Your task to perform on an android device: turn off picture-in-picture Image 0: 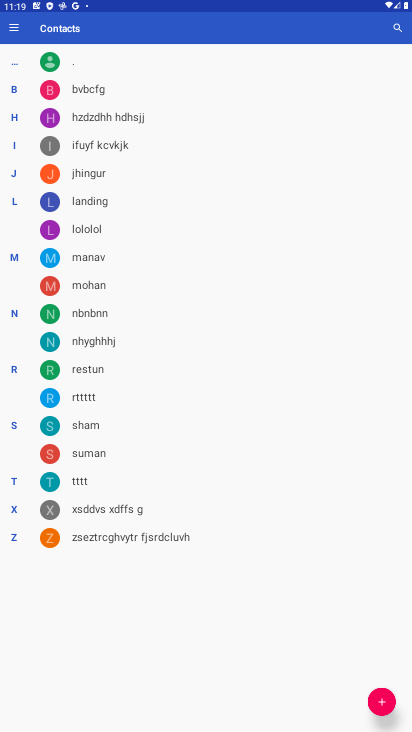
Step 0: press home button
Your task to perform on an android device: turn off picture-in-picture Image 1: 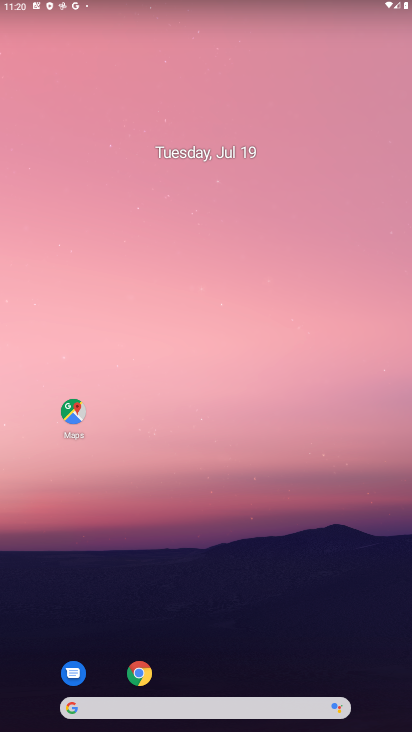
Step 1: drag from (268, 686) to (222, 141)
Your task to perform on an android device: turn off picture-in-picture Image 2: 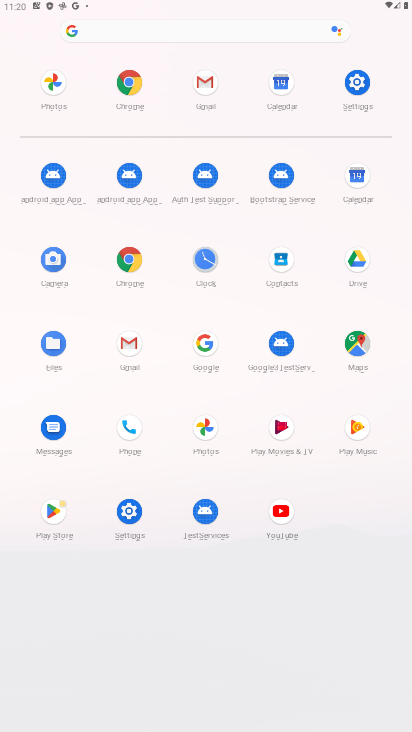
Step 2: click (351, 97)
Your task to perform on an android device: turn off picture-in-picture Image 3: 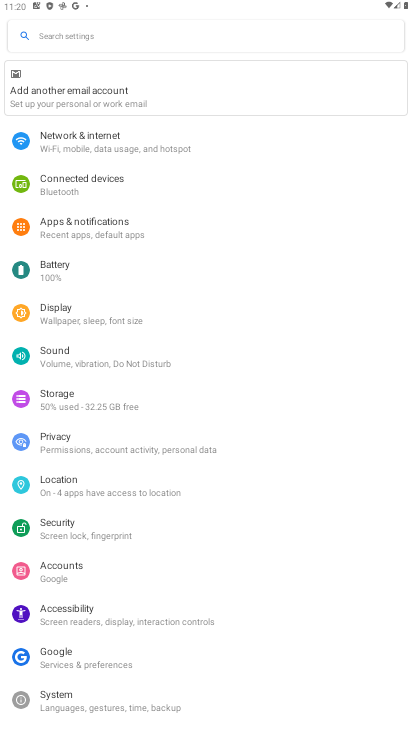
Step 3: click (77, 208)
Your task to perform on an android device: turn off picture-in-picture Image 4: 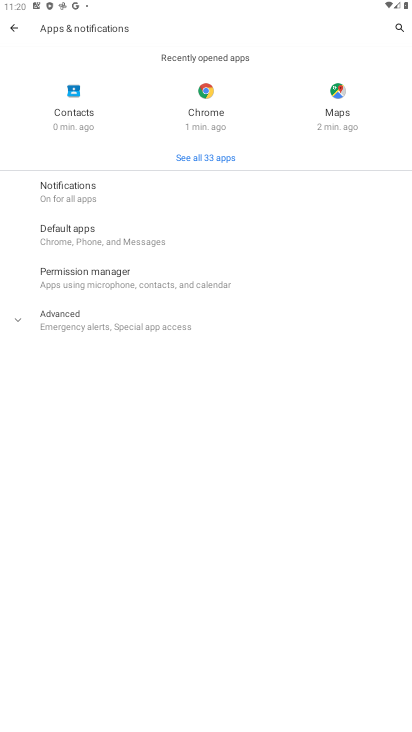
Step 4: click (161, 339)
Your task to perform on an android device: turn off picture-in-picture Image 5: 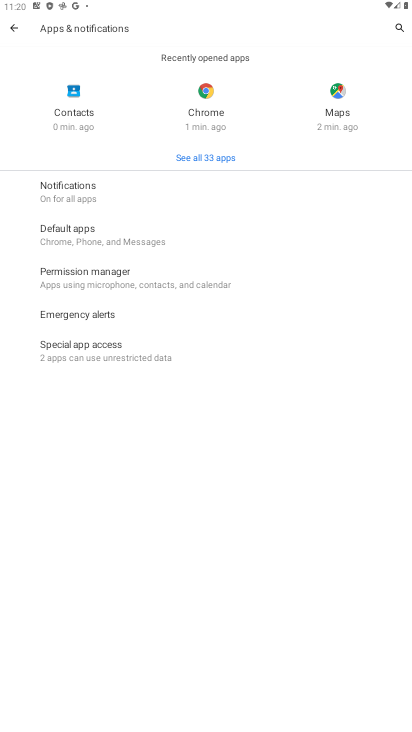
Step 5: click (172, 334)
Your task to perform on an android device: turn off picture-in-picture Image 6: 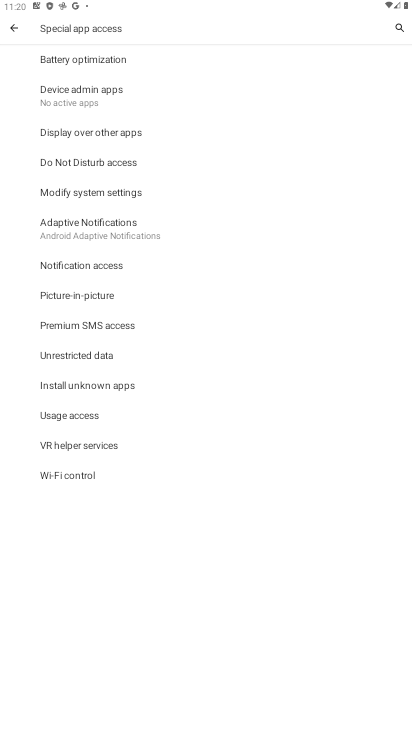
Step 6: click (115, 300)
Your task to perform on an android device: turn off picture-in-picture Image 7: 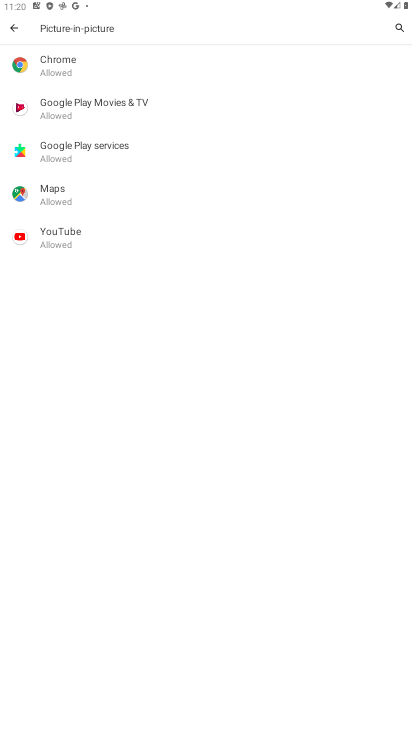
Step 7: task complete